Your task to perform on an android device: open app "Nova Launcher" Image 0: 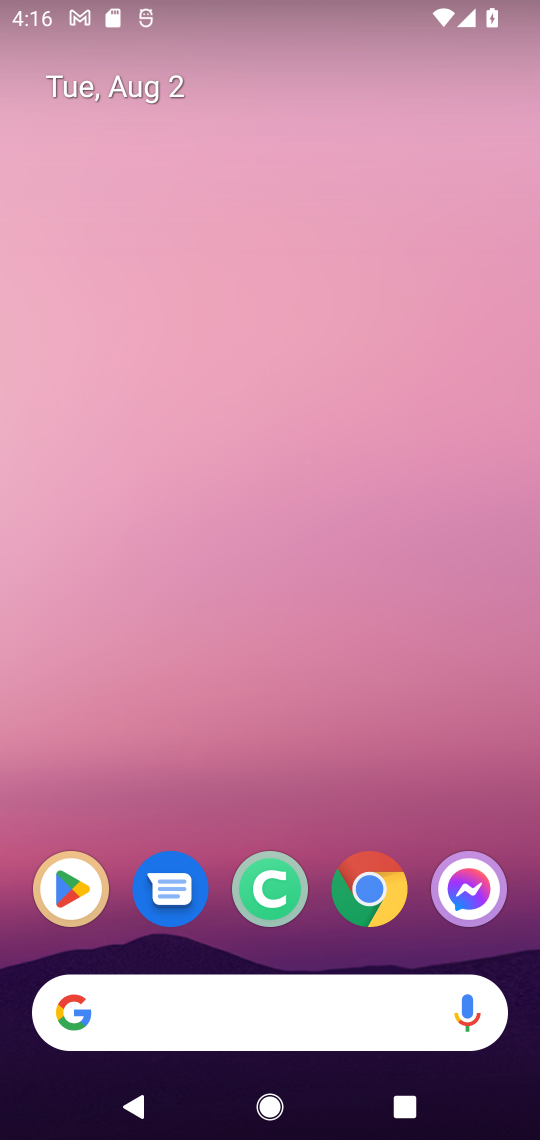
Step 0: press home button
Your task to perform on an android device: open app "Nova Launcher" Image 1: 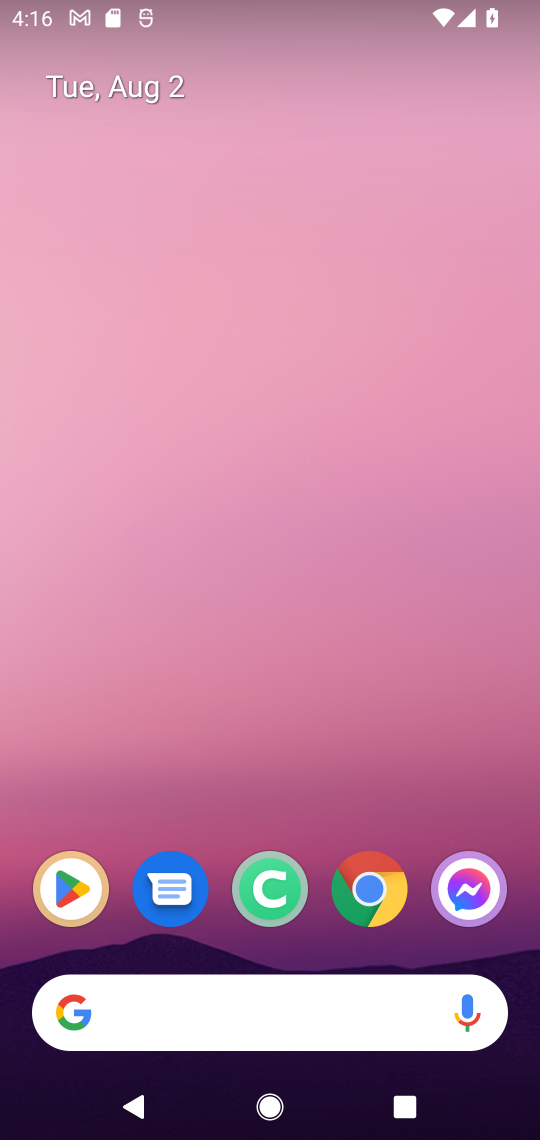
Step 1: drag from (411, 675) to (422, 101)
Your task to perform on an android device: open app "Nova Launcher" Image 2: 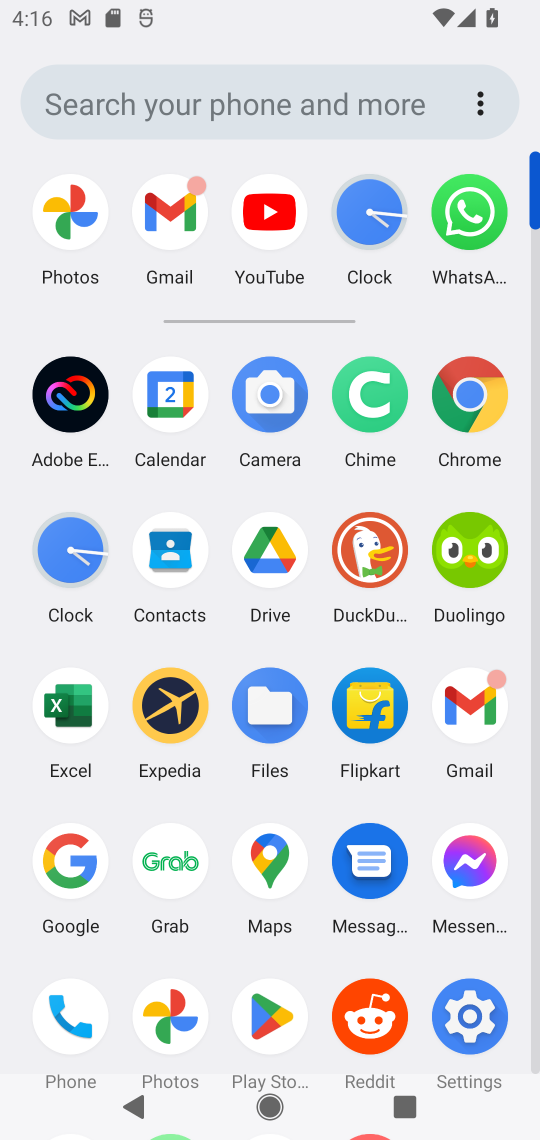
Step 2: click (269, 1023)
Your task to perform on an android device: open app "Nova Launcher" Image 3: 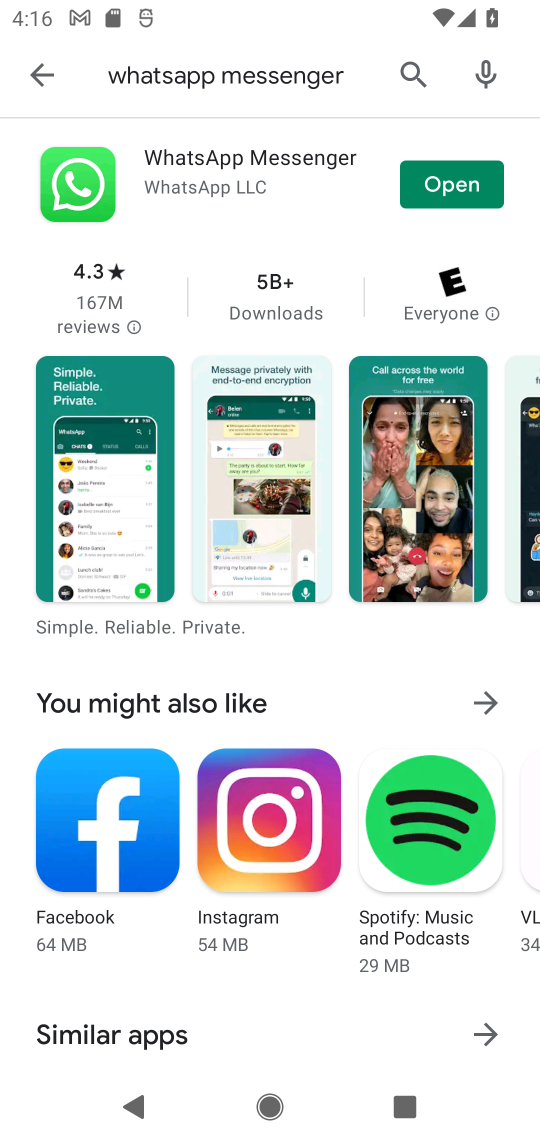
Step 3: click (415, 69)
Your task to perform on an android device: open app "Nova Launcher" Image 4: 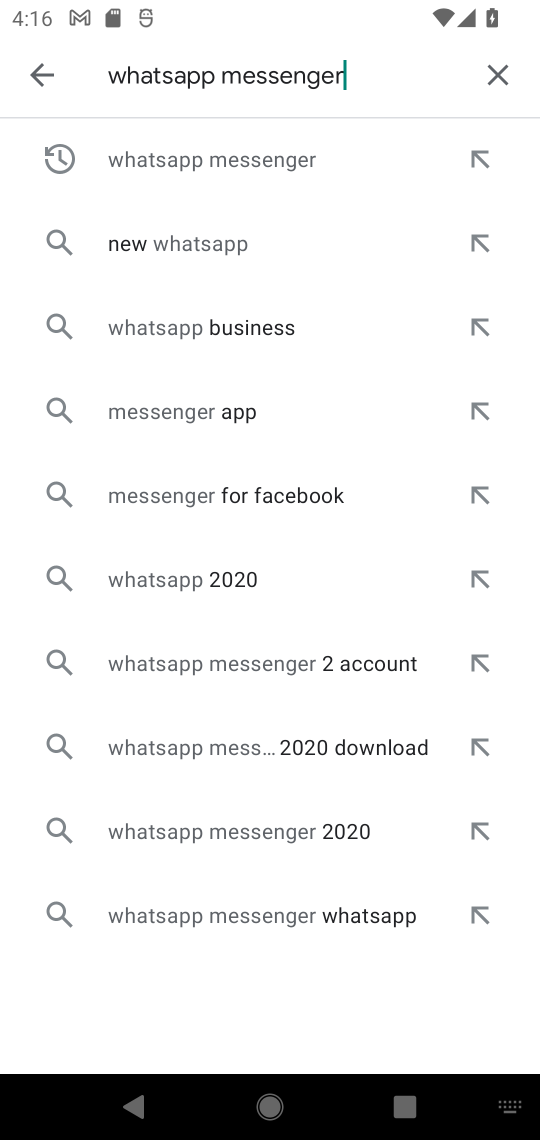
Step 4: click (482, 78)
Your task to perform on an android device: open app "Nova Launcher" Image 5: 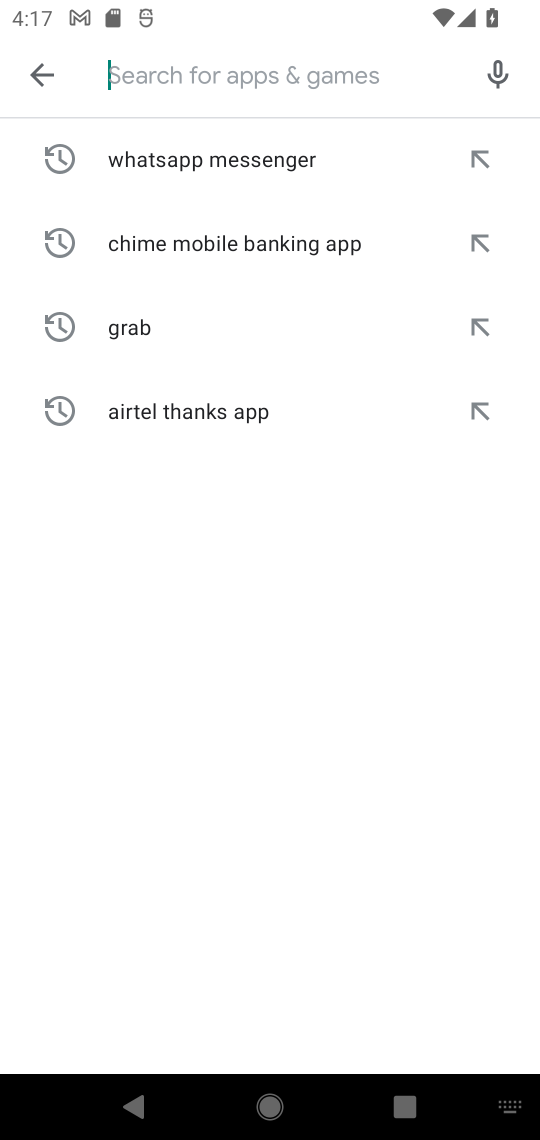
Step 5: type "nova launcher"
Your task to perform on an android device: open app "Nova Launcher" Image 6: 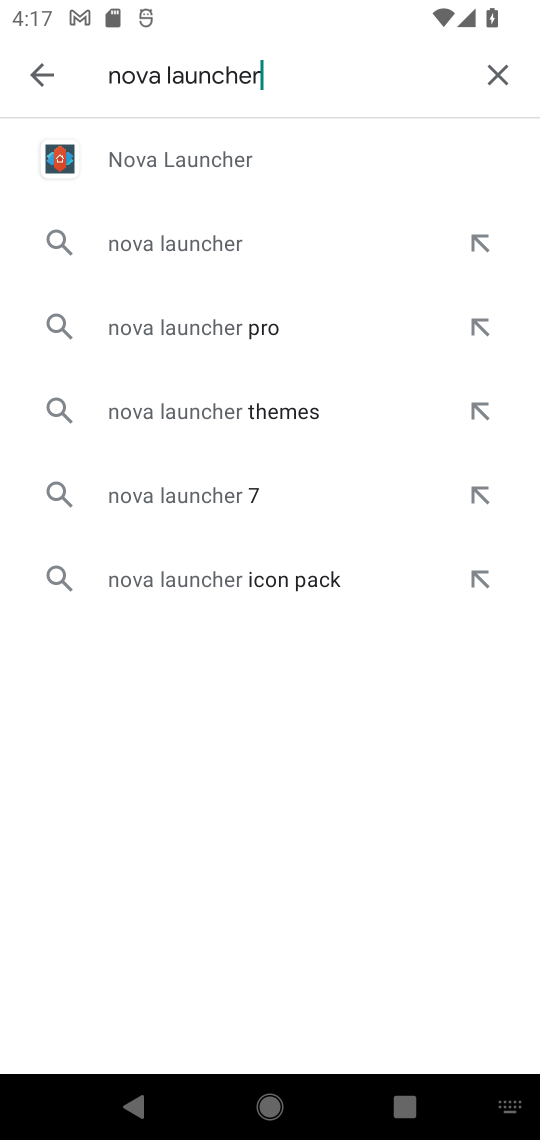
Step 6: click (283, 152)
Your task to perform on an android device: open app "Nova Launcher" Image 7: 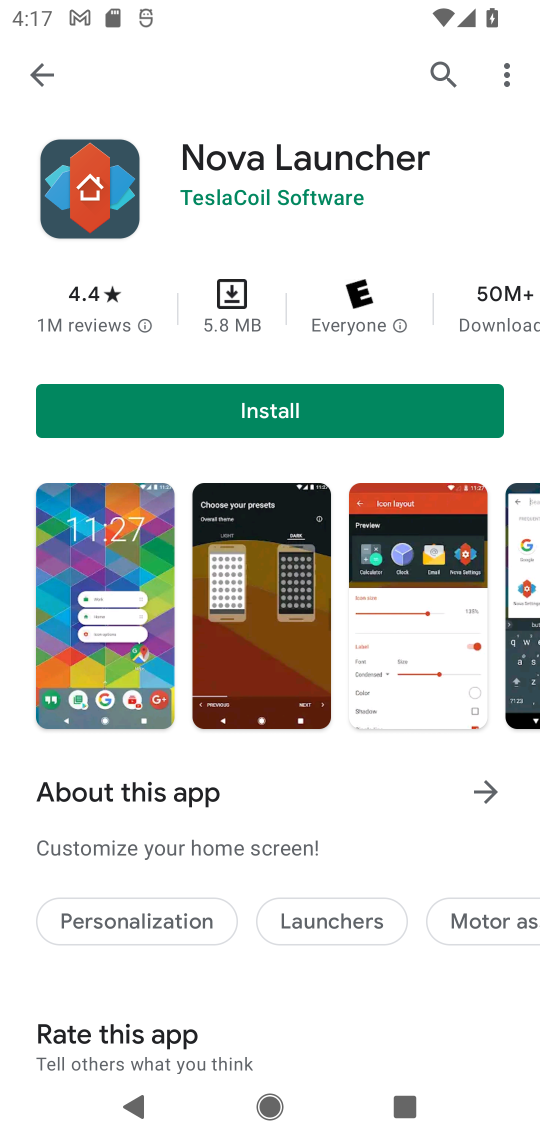
Step 7: task complete